Your task to perform on an android device: Search for acer predator on amazon.com, select the first entry, add it to the cart, then select checkout. Image 0: 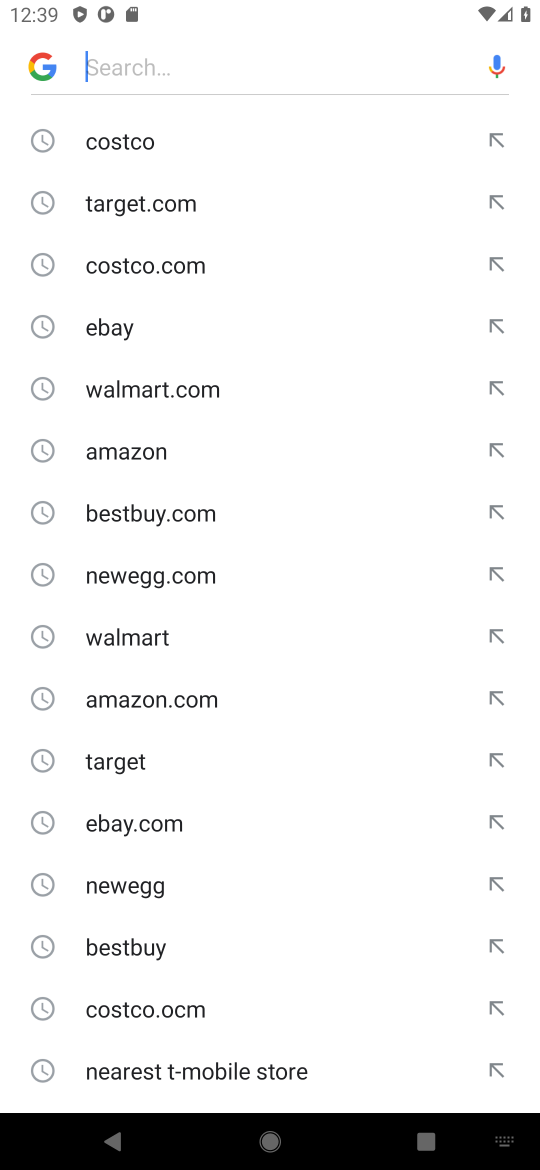
Step 0: press home button
Your task to perform on an android device: Search for acer predator on amazon.com, select the first entry, add it to the cart, then select checkout. Image 1: 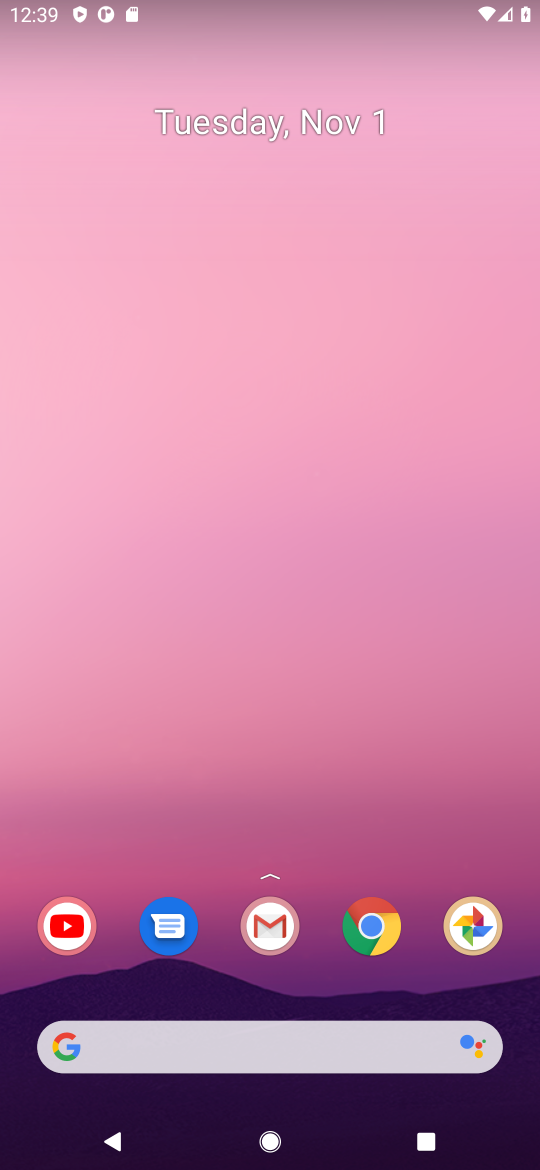
Step 1: click (374, 931)
Your task to perform on an android device: Search for acer predator on amazon.com, select the first entry, add it to the cart, then select checkout. Image 2: 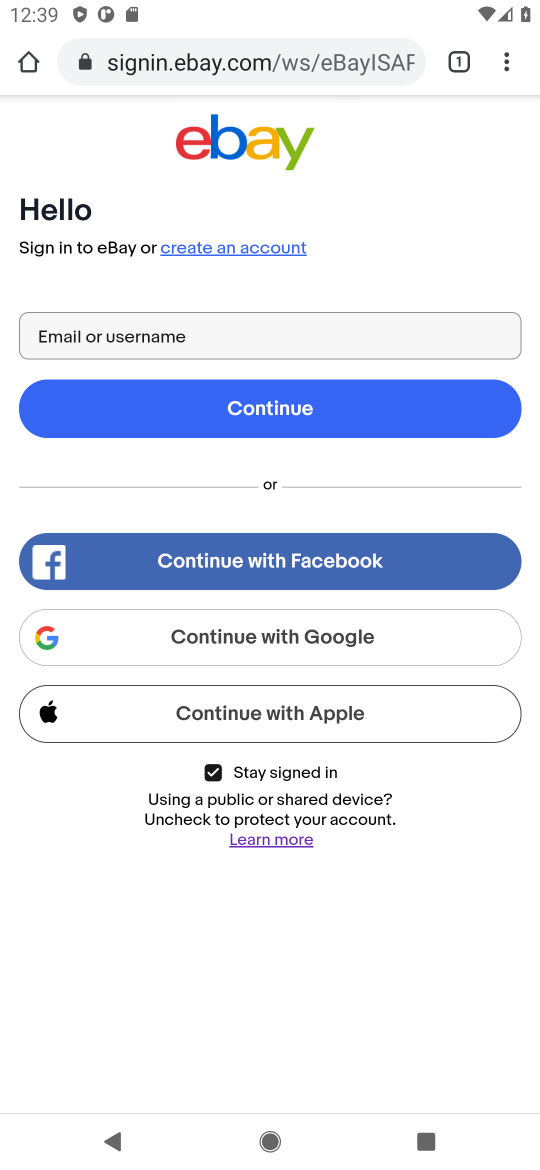
Step 2: click (253, 44)
Your task to perform on an android device: Search for acer predator on amazon.com, select the first entry, add it to the cart, then select checkout. Image 3: 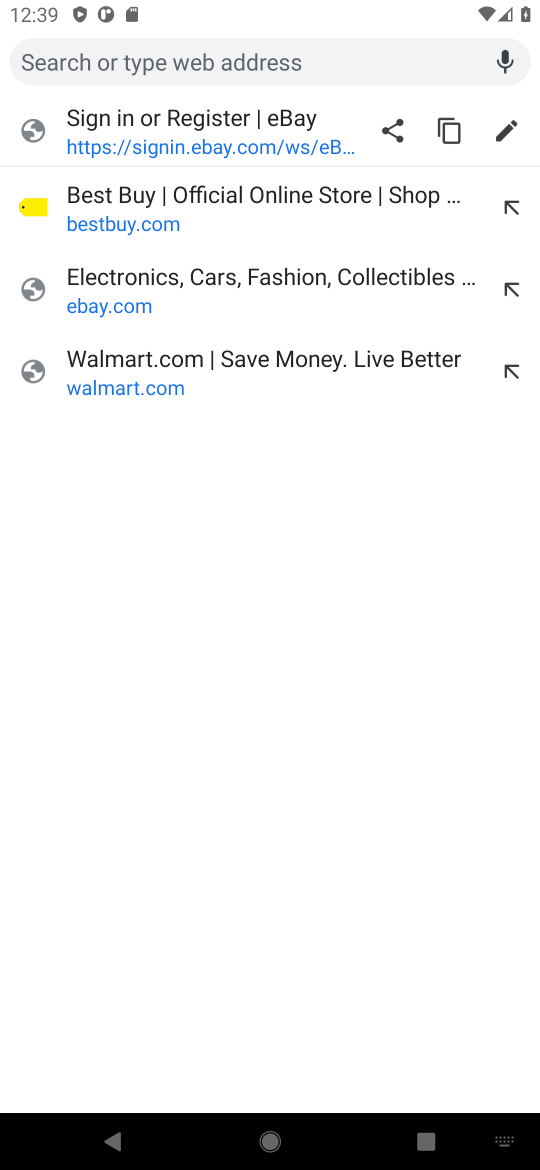
Step 3: type "amazon.com"
Your task to perform on an android device: Search for acer predator on amazon.com, select the first entry, add it to the cart, then select checkout. Image 4: 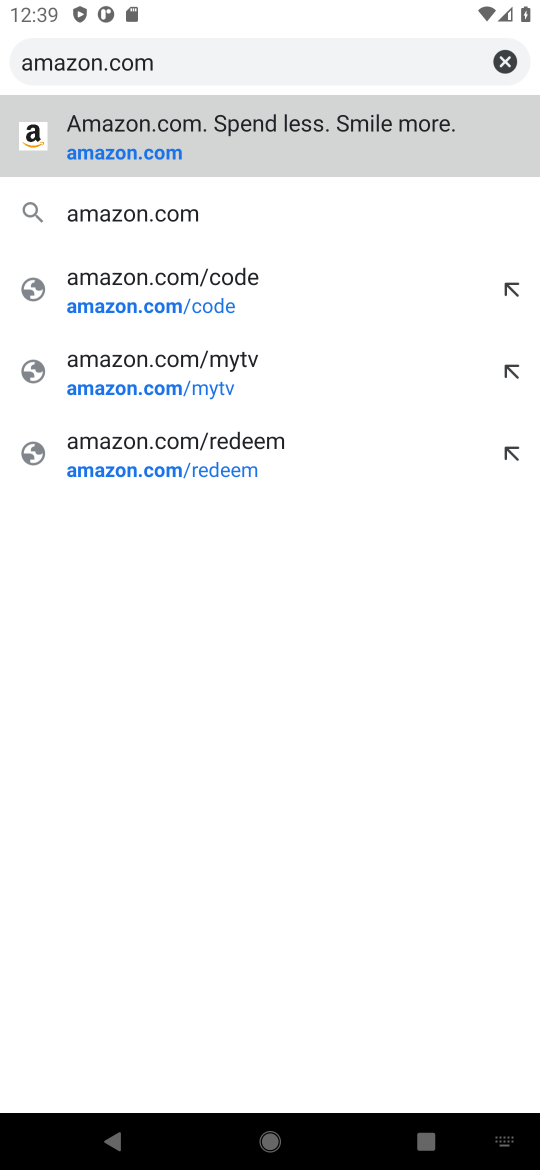
Step 4: click (353, 146)
Your task to perform on an android device: Search for acer predator on amazon.com, select the first entry, add it to the cart, then select checkout. Image 5: 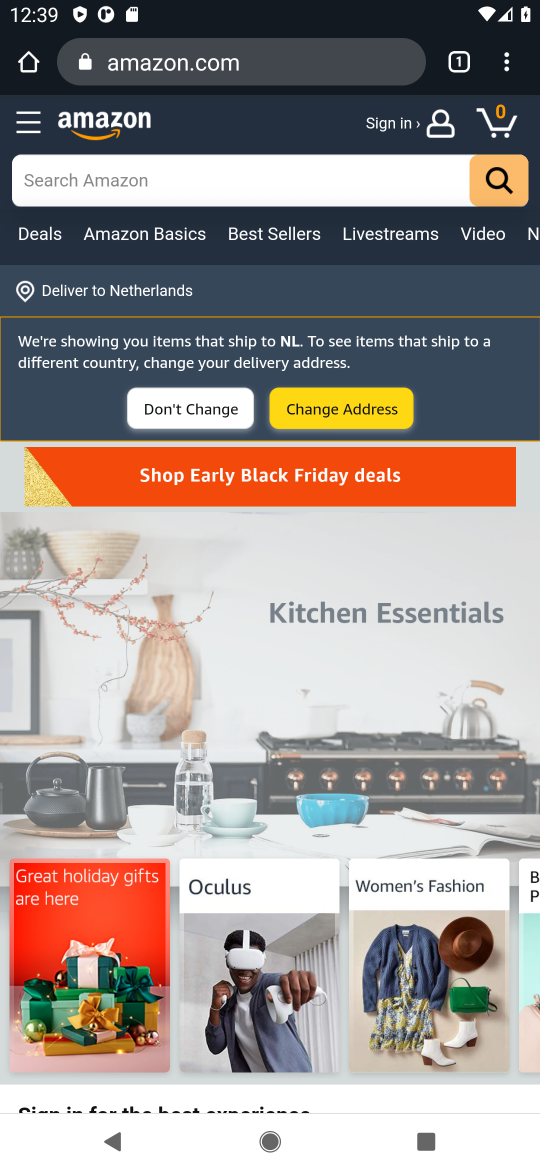
Step 5: click (344, 180)
Your task to perform on an android device: Search for acer predator on amazon.com, select the first entry, add it to the cart, then select checkout. Image 6: 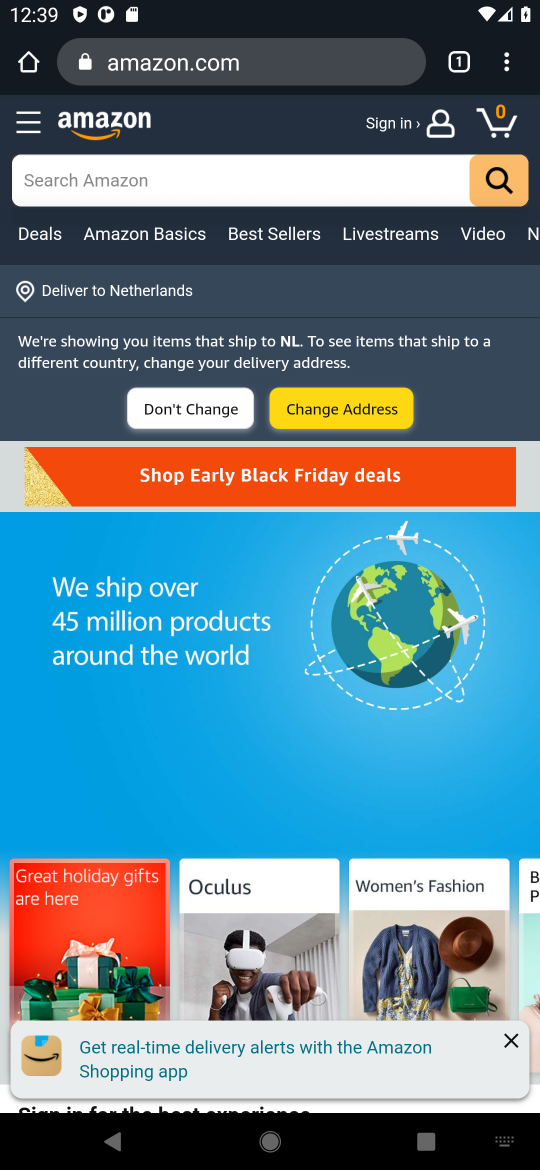
Step 6: type "acer predator"
Your task to perform on an android device: Search for acer predator on amazon.com, select the first entry, add it to the cart, then select checkout. Image 7: 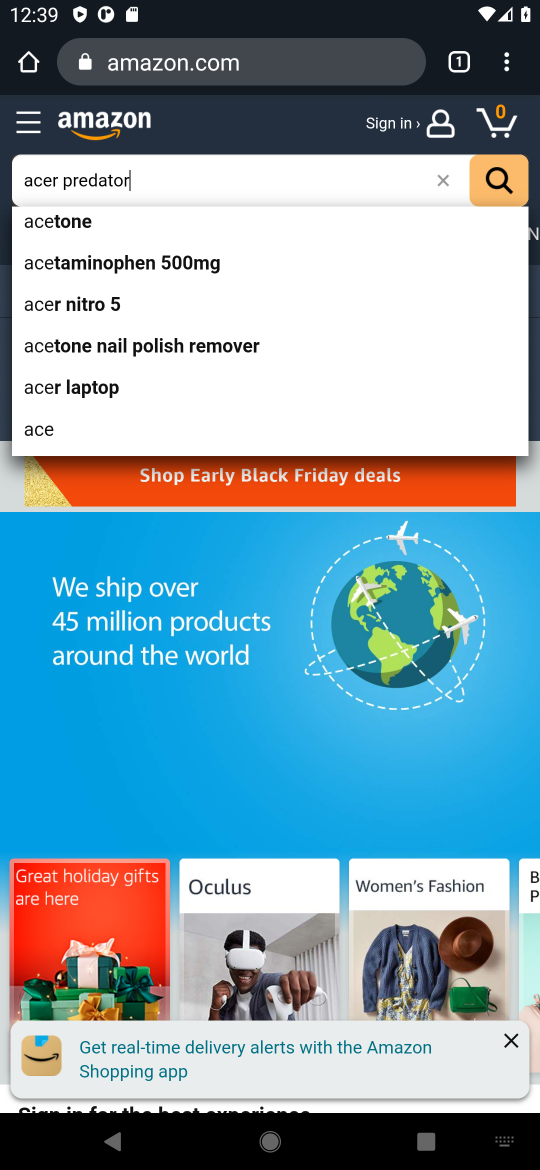
Step 7: type ""
Your task to perform on an android device: Search for acer predator on amazon.com, select the first entry, add it to the cart, then select checkout. Image 8: 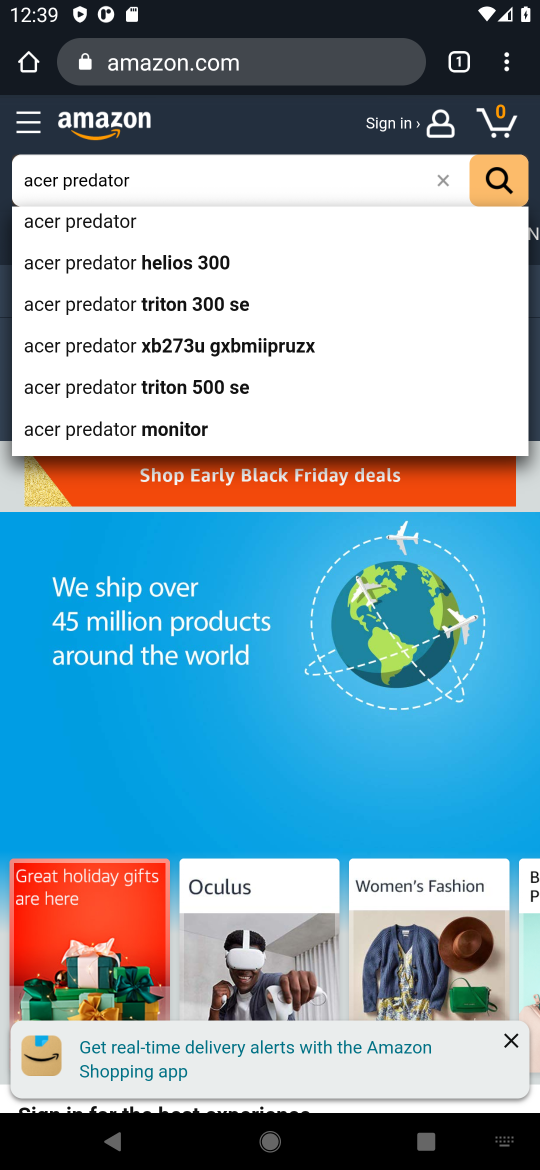
Step 8: press enter
Your task to perform on an android device: Search for acer predator on amazon.com, select the first entry, add it to the cart, then select checkout. Image 9: 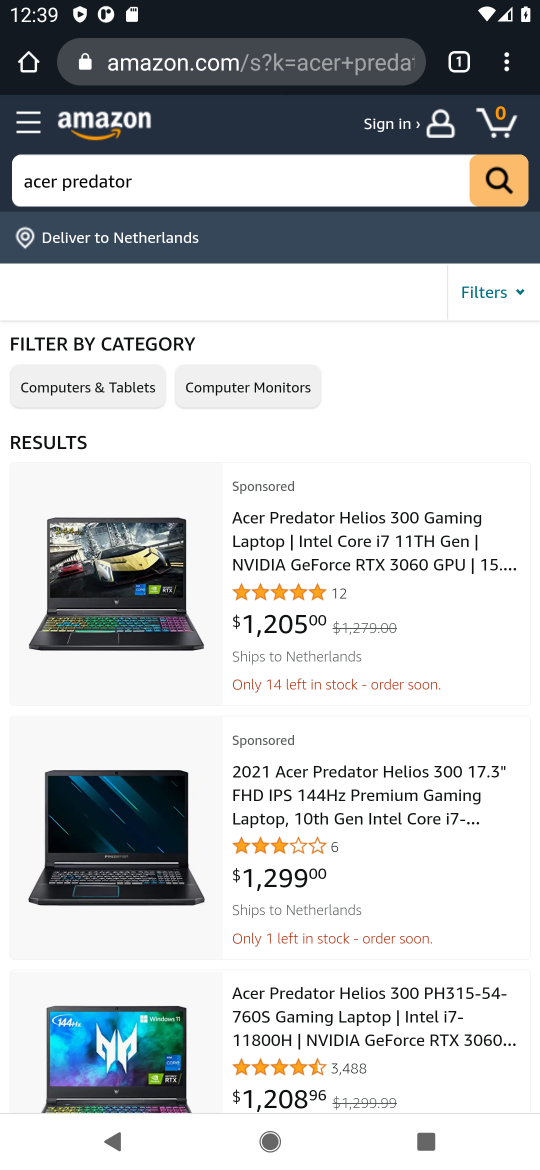
Step 9: click (400, 591)
Your task to perform on an android device: Search for acer predator on amazon.com, select the first entry, add it to the cart, then select checkout. Image 10: 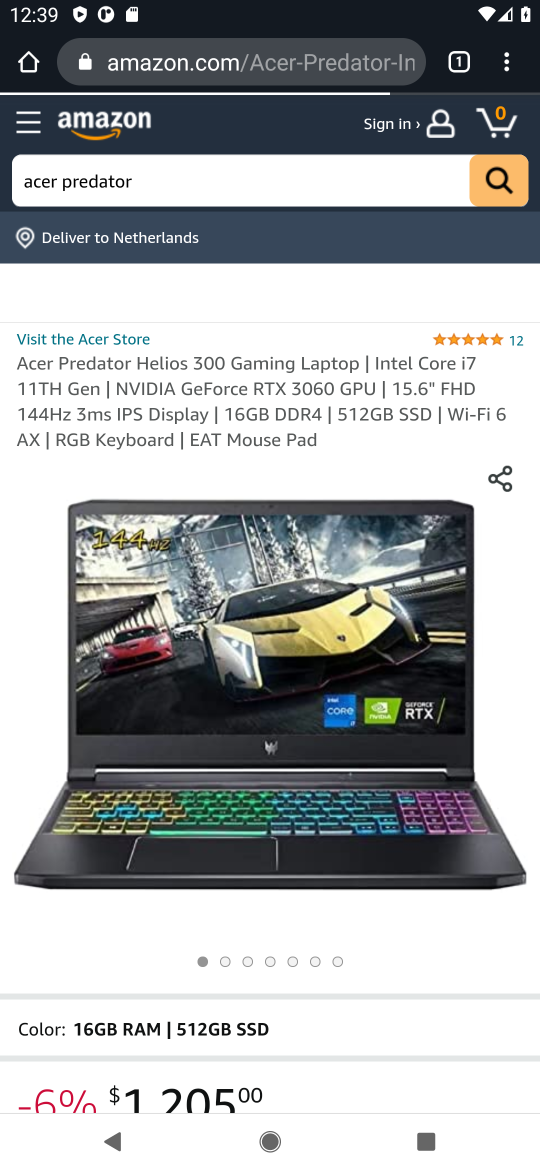
Step 10: drag from (291, 937) to (307, 573)
Your task to perform on an android device: Search for acer predator on amazon.com, select the first entry, add it to the cart, then select checkout. Image 11: 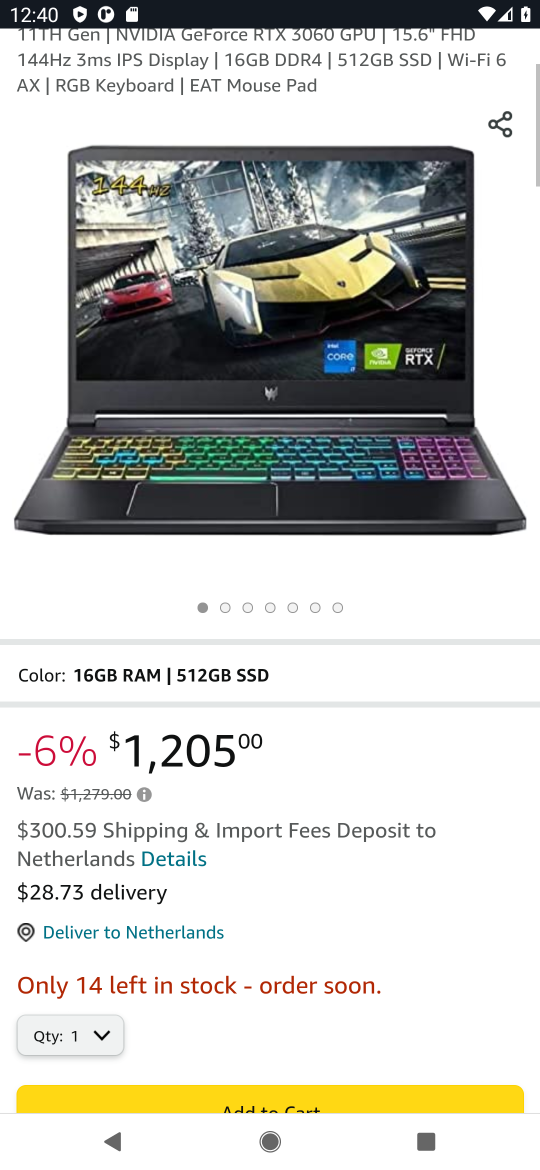
Step 11: drag from (315, 786) to (309, 637)
Your task to perform on an android device: Search for acer predator on amazon.com, select the first entry, add it to the cart, then select checkout. Image 12: 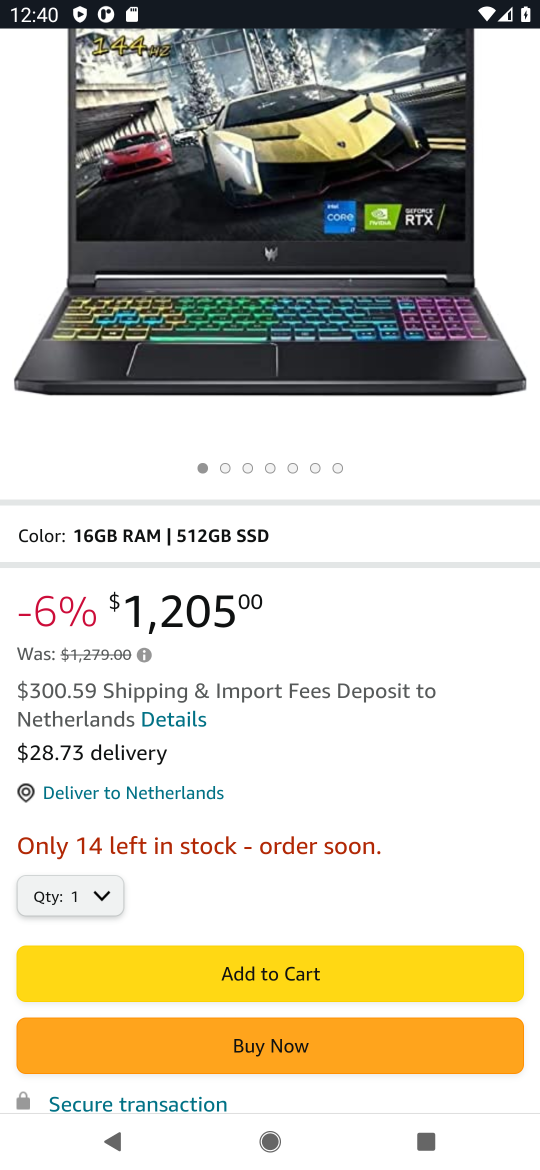
Step 12: click (315, 979)
Your task to perform on an android device: Search for acer predator on amazon.com, select the first entry, add it to the cart, then select checkout. Image 13: 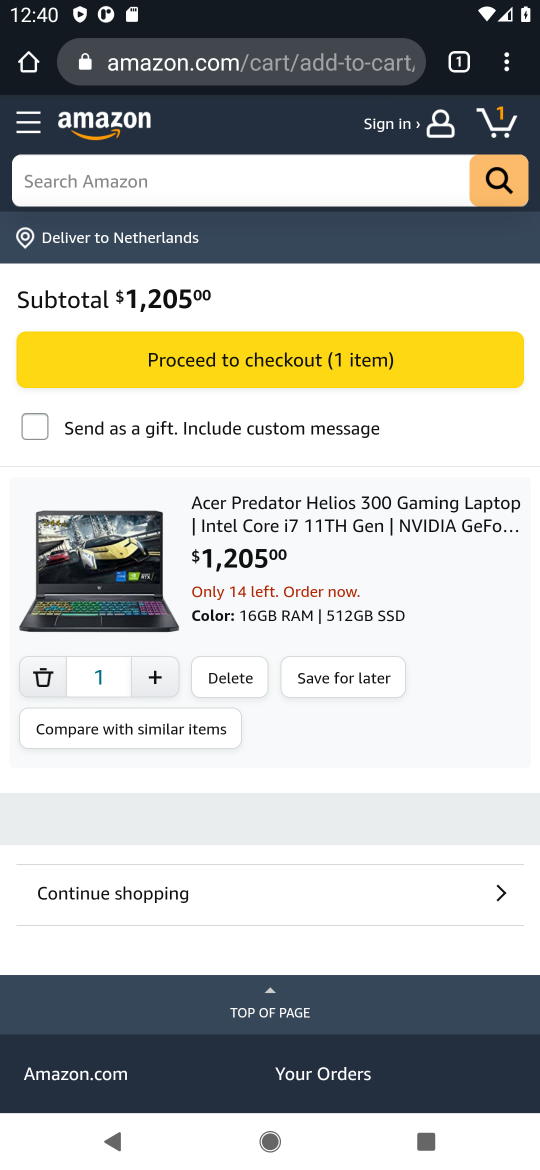
Step 13: click (228, 365)
Your task to perform on an android device: Search for acer predator on amazon.com, select the first entry, add it to the cart, then select checkout. Image 14: 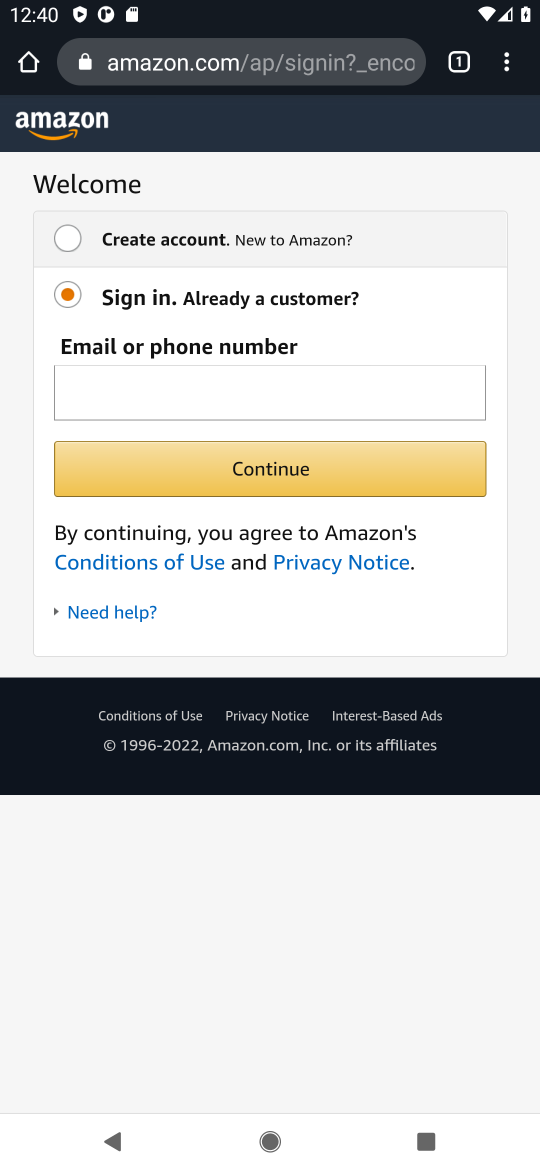
Step 14: press back button
Your task to perform on an android device: Search for acer predator on amazon.com, select the first entry, add it to the cart, then select checkout. Image 15: 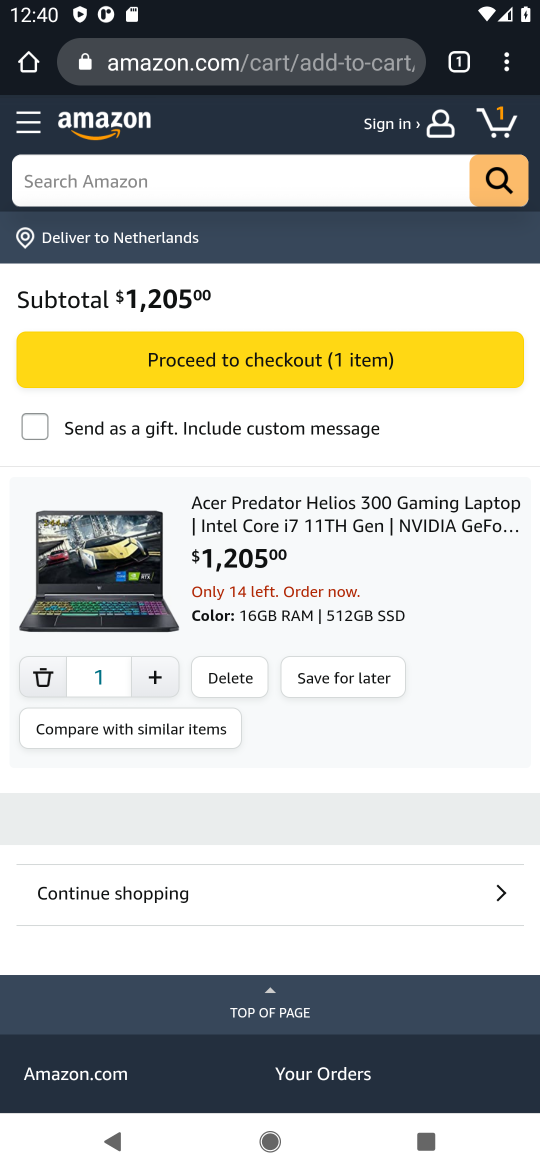
Step 15: click (255, 373)
Your task to perform on an android device: Search for acer predator on amazon.com, select the first entry, add it to the cart, then select checkout. Image 16: 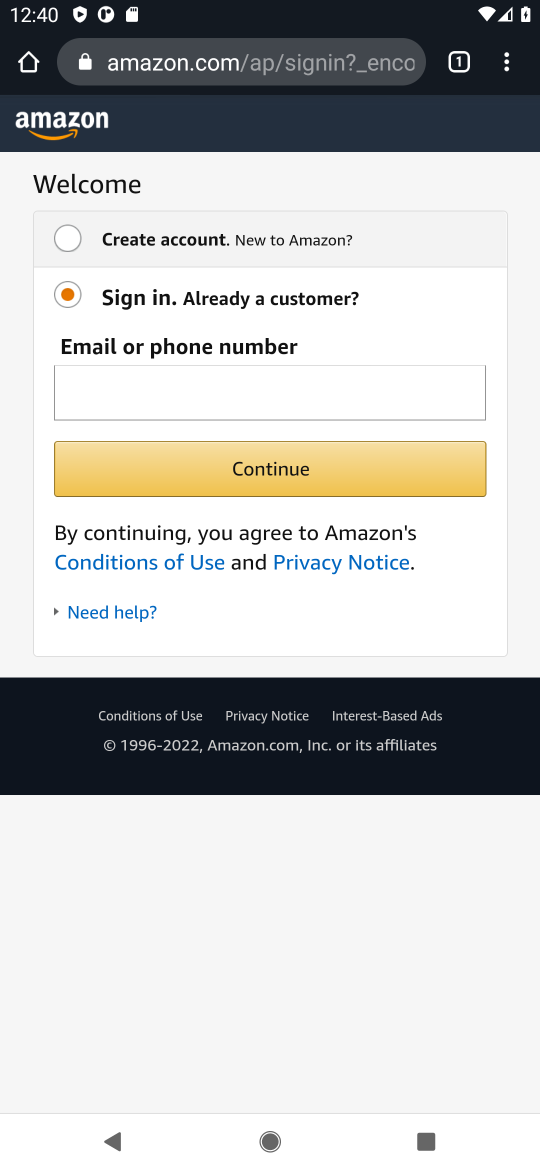
Step 16: task complete